Your task to perform on an android device: find which apps use the phone's location Image 0: 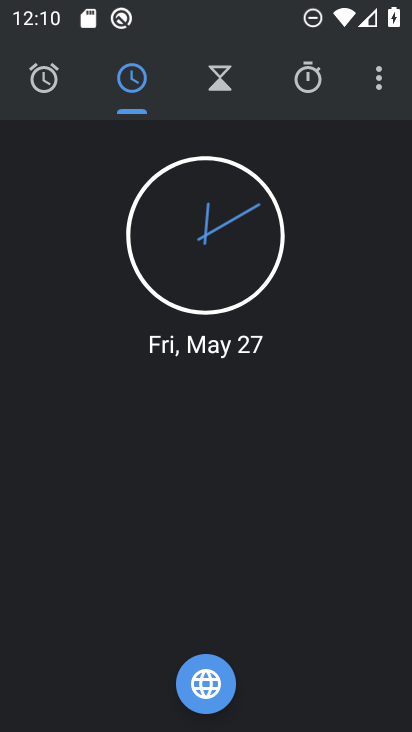
Step 0: press home button
Your task to perform on an android device: find which apps use the phone's location Image 1: 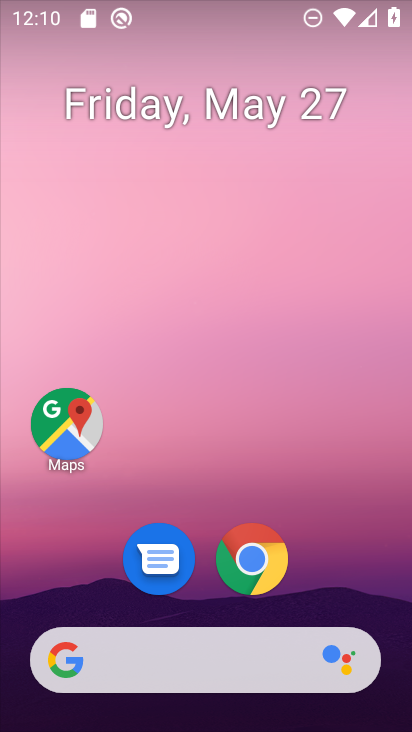
Step 1: drag from (334, 527) to (307, 147)
Your task to perform on an android device: find which apps use the phone's location Image 2: 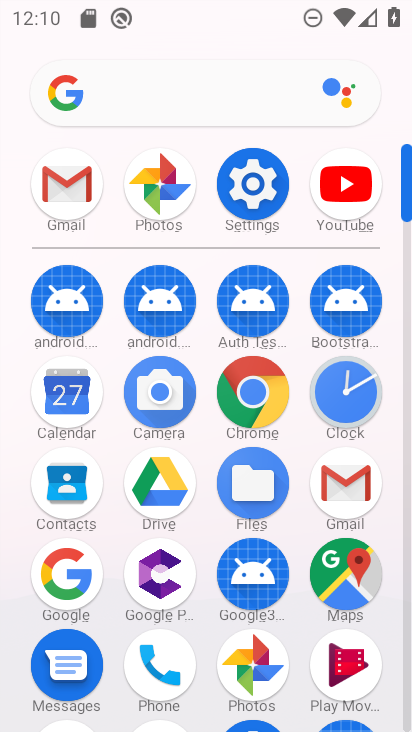
Step 2: click (264, 209)
Your task to perform on an android device: find which apps use the phone's location Image 3: 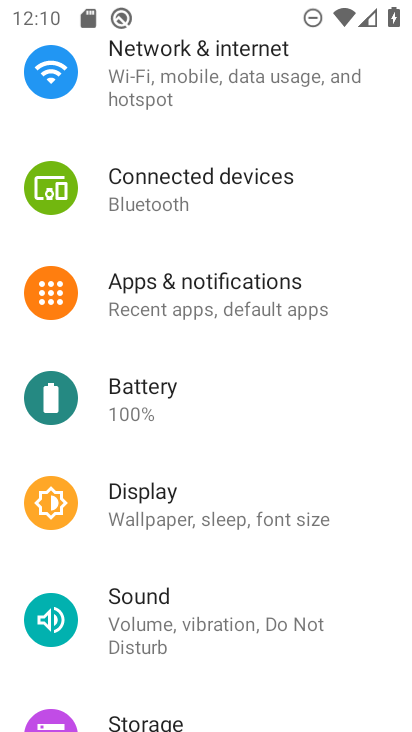
Step 3: drag from (270, 558) to (343, 176)
Your task to perform on an android device: find which apps use the phone's location Image 4: 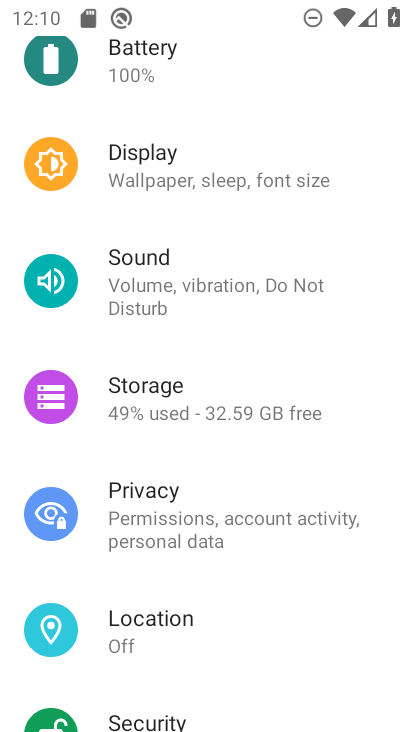
Step 4: click (190, 609)
Your task to perform on an android device: find which apps use the phone's location Image 5: 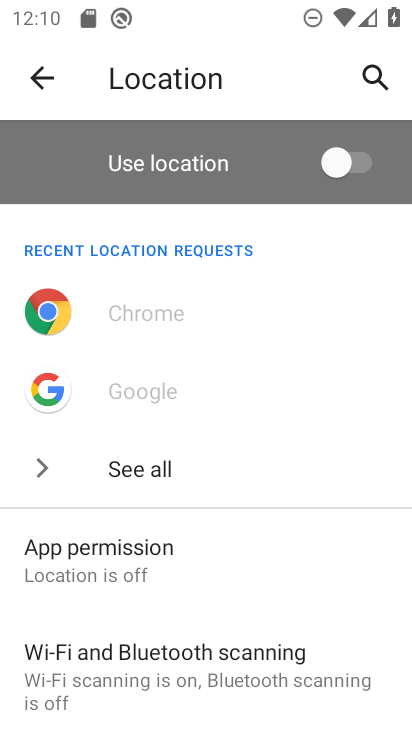
Step 5: drag from (197, 551) to (211, 170)
Your task to perform on an android device: find which apps use the phone's location Image 6: 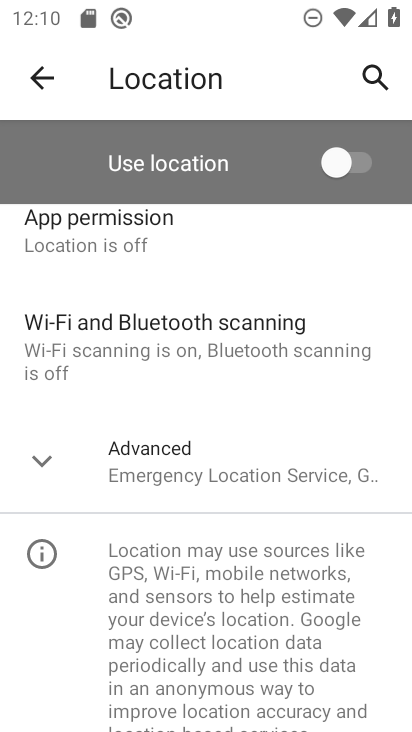
Step 6: click (166, 419)
Your task to perform on an android device: find which apps use the phone's location Image 7: 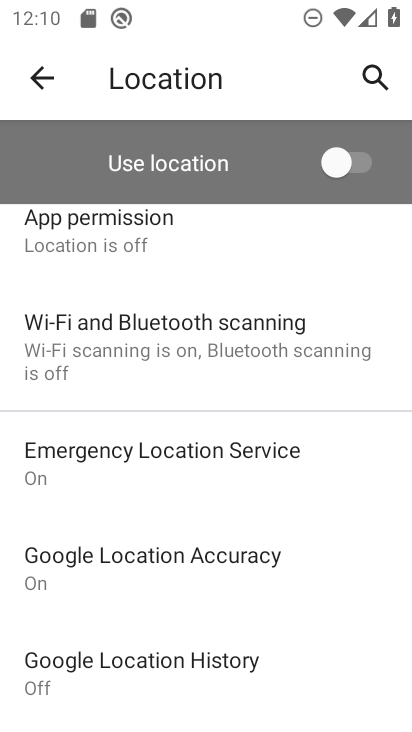
Step 7: task complete